Your task to perform on an android device: turn pop-ups off in chrome Image 0: 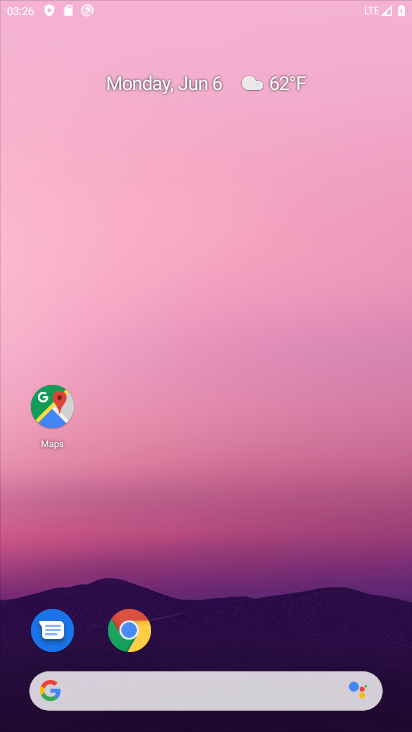
Step 0: press home button
Your task to perform on an android device: turn pop-ups off in chrome Image 1: 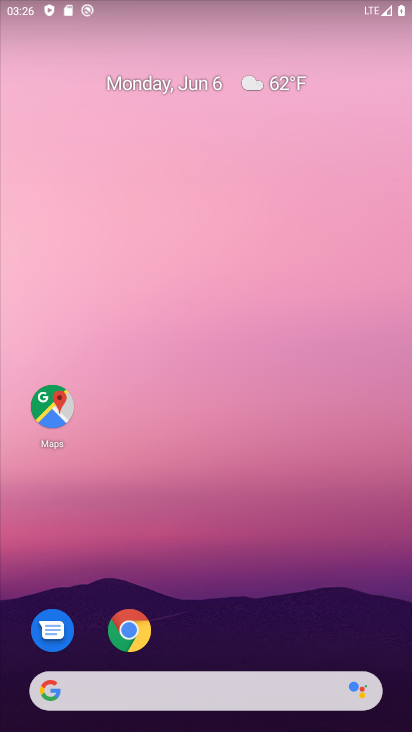
Step 1: click (140, 632)
Your task to perform on an android device: turn pop-ups off in chrome Image 2: 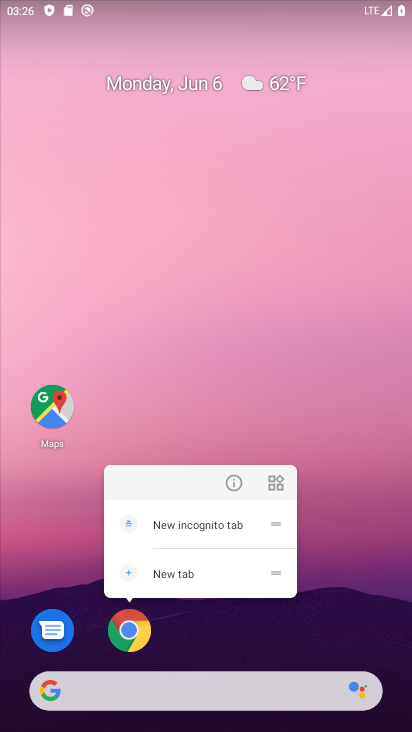
Step 2: click (140, 627)
Your task to perform on an android device: turn pop-ups off in chrome Image 3: 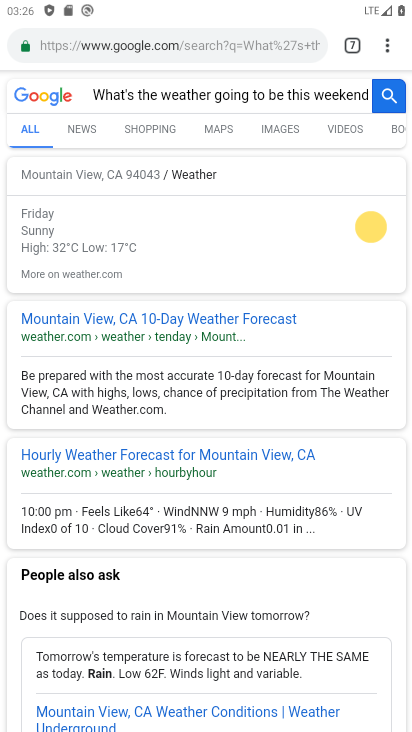
Step 3: drag from (397, 40) to (206, 515)
Your task to perform on an android device: turn pop-ups off in chrome Image 4: 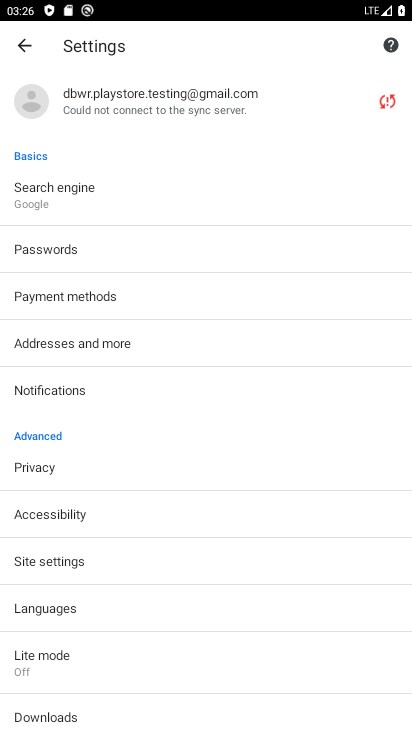
Step 4: click (87, 569)
Your task to perform on an android device: turn pop-ups off in chrome Image 5: 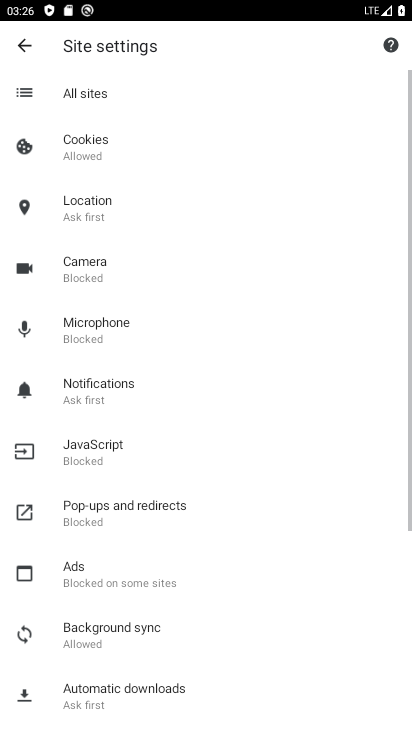
Step 5: click (112, 508)
Your task to perform on an android device: turn pop-ups off in chrome Image 6: 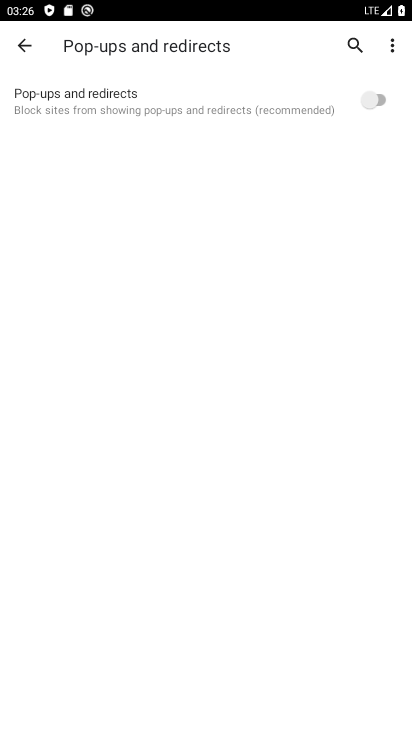
Step 6: task complete